Your task to perform on an android device: When is my next meeting? Image 0: 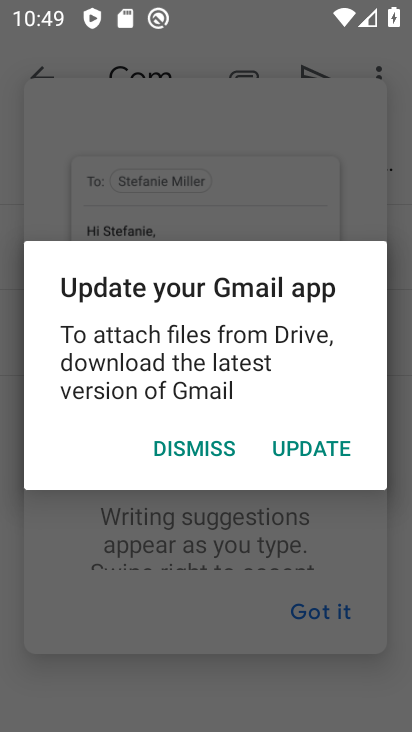
Step 0: press home button
Your task to perform on an android device: When is my next meeting? Image 1: 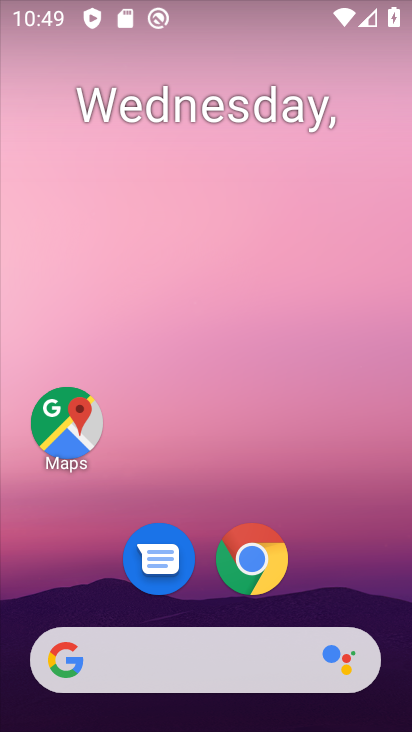
Step 1: drag from (344, 468) to (364, 220)
Your task to perform on an android device: When is my next meeting? Image 2: 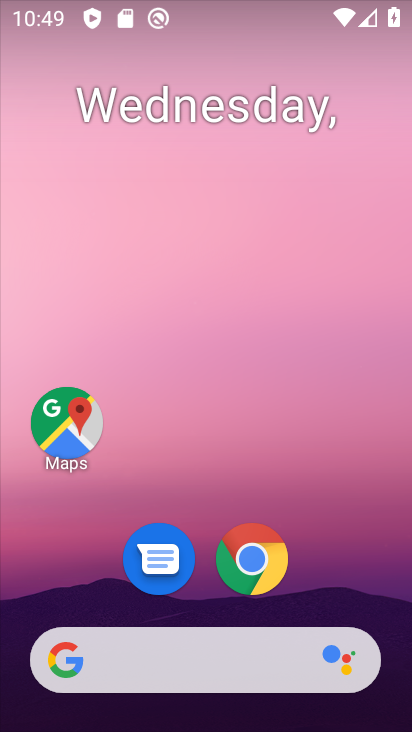
Step 2: drag from (347, 561) to (243, 0)
Your task to perform on an android device: When is my next meeting? Image 3: 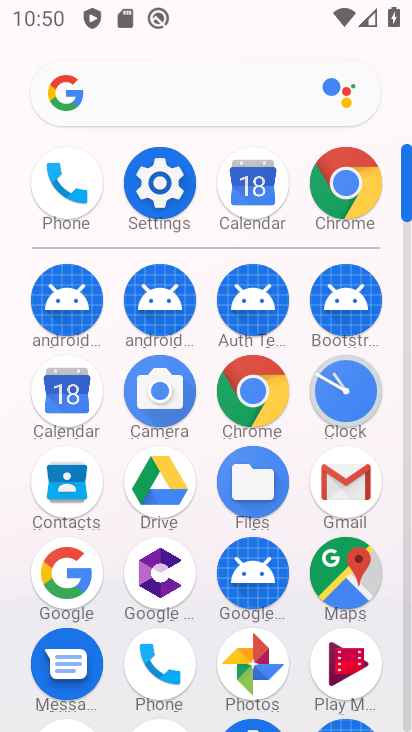
Step 3: click (68, 395)
Your task to perform on an android device: When is my next meeting? Image 4: 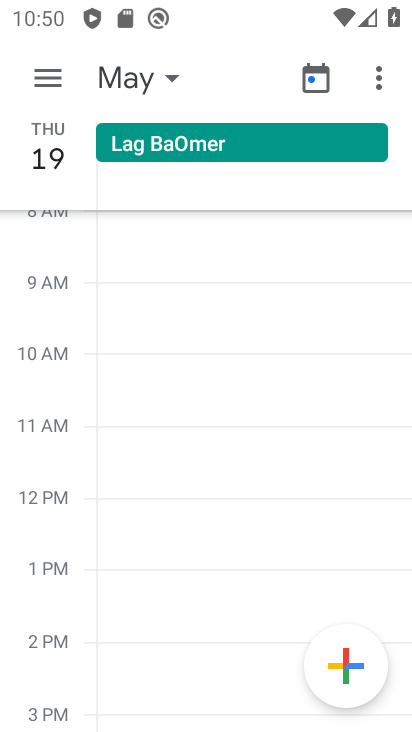
Step 4: click (141, 90)
Your task to perform on an android device: When is my next meeting? Image 5: 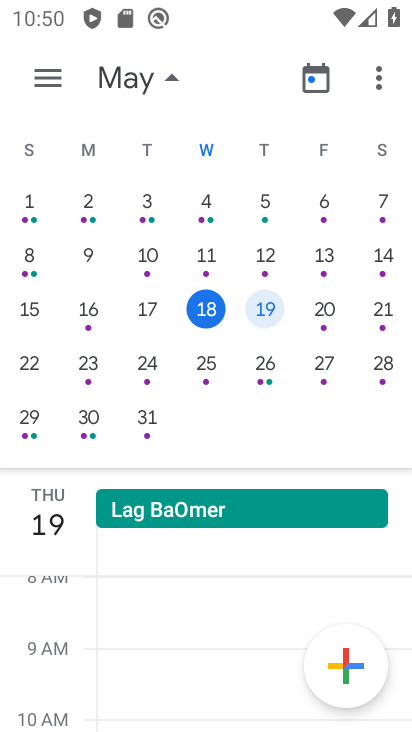
Step 5: click (331, 319)
Your task to perform on an android device: When is my next meeting? Image 6: 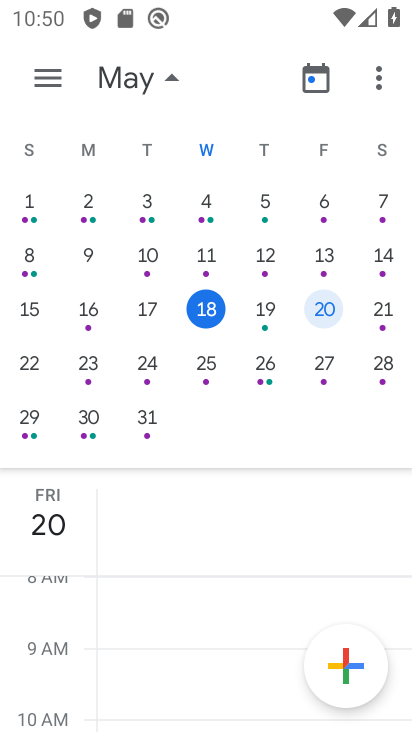
Step 6: task complete